Your task to perform on an android device: Check the weather Image 0: 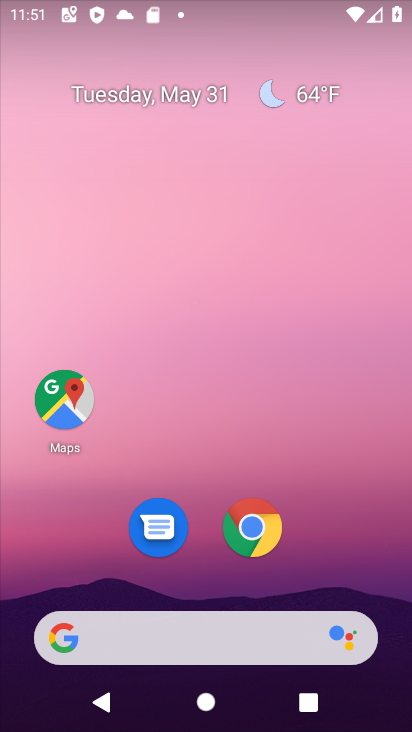
Step 0: click (354, 695)
Your task to perform on an android device: Check the weather Image 1: 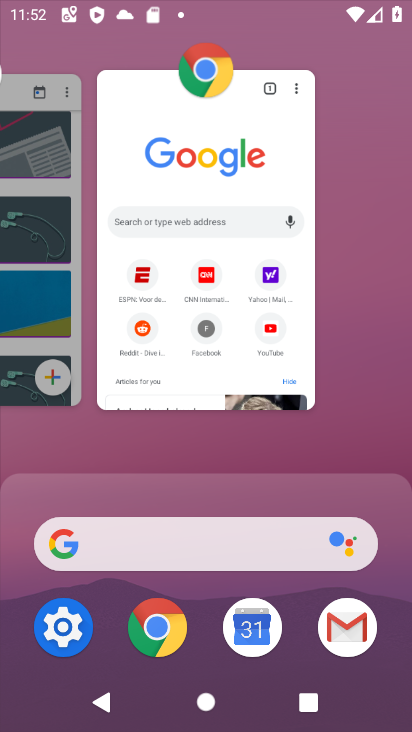
Step 1: click (172, 556)
Your task to perform on an android device: Check the weather Image 2: 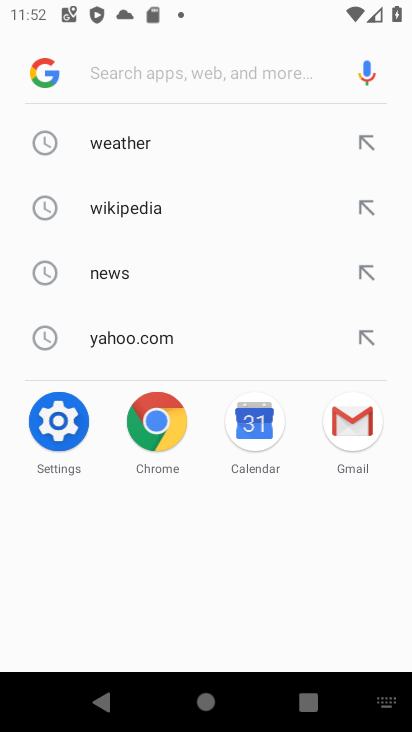
Step 2: click (142, 123)
Your task to perform on an android device: Check the weather Image 3: 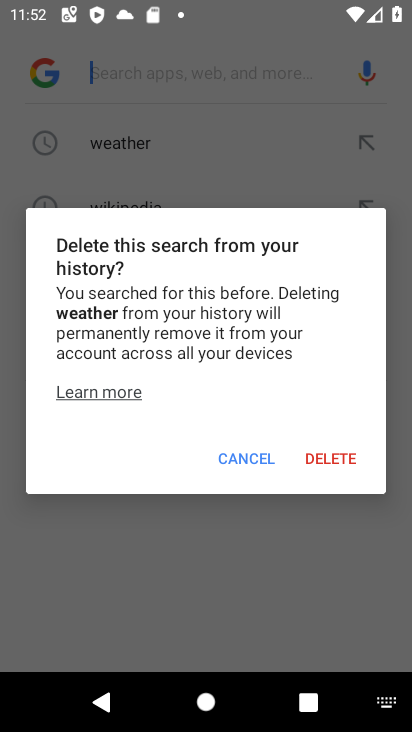
Step 3: click (347, 464)
Your task to perform on an android device: Check the weather Image 4: 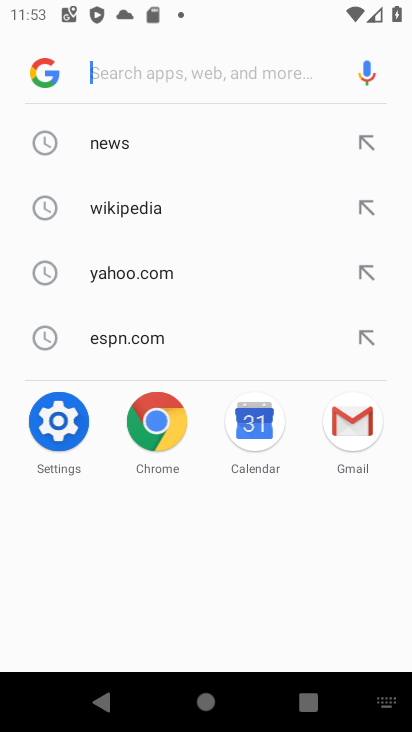
Step 4: type "weather"
Your task to perform on an android device: Check the weather Image 5: 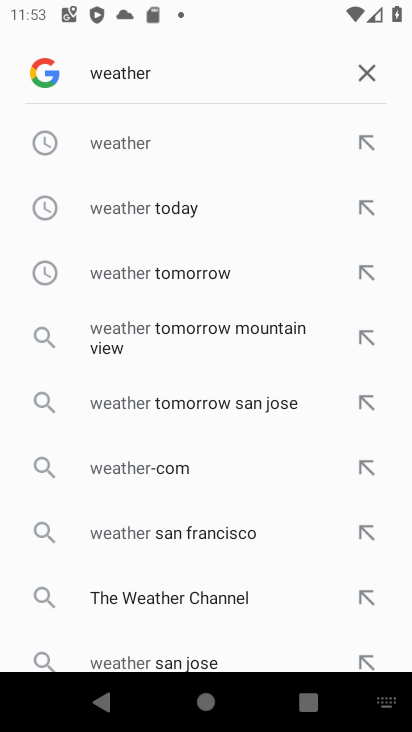
Step 5: click (96, 140)
Your task to perform on an android device: Check the weather Image 6: 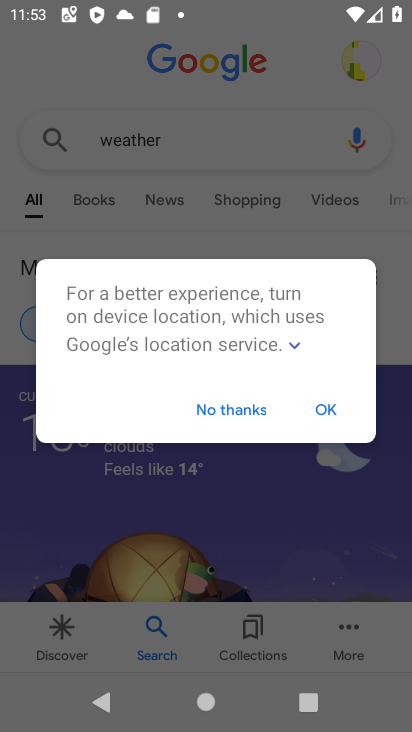
Step 6: task complete